Your task to perform on an android device: turn off location history Image 0: 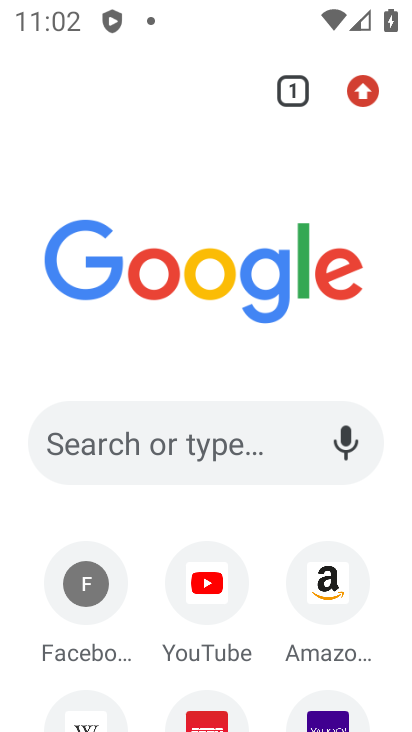
Step 0: press home button
Your task to perform on an android device: turn off location history Image 1: 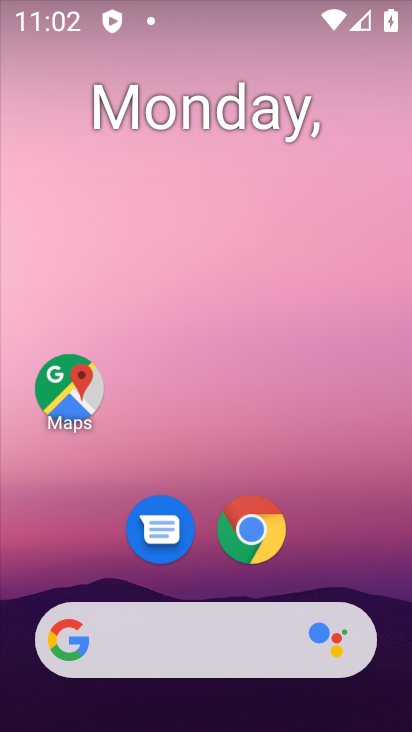
Step 1: drag from (199, 592) to (213, 223)
Your task to perform on an android device: turn off location history Image 2: 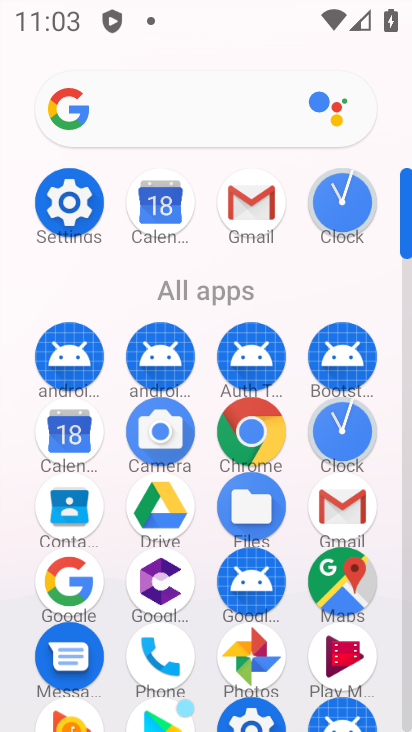
Step 2: click (61, 212)
Your task to perform on an android device: turn off location history Image 3: 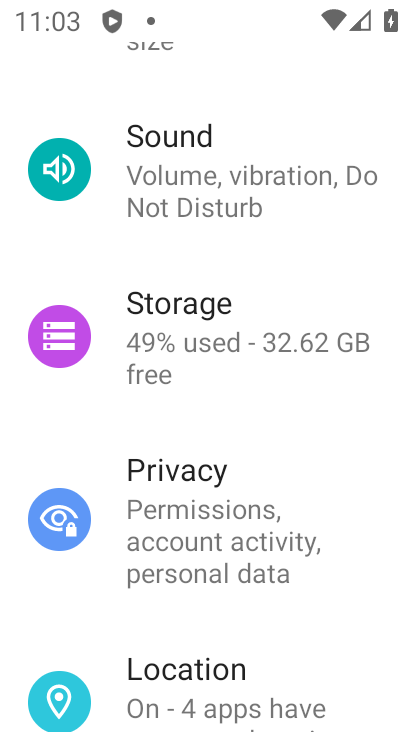
Step 3: drag from (257, 544) to (219, 221)
Your task to perform on an android device: turn off location history Image 4: 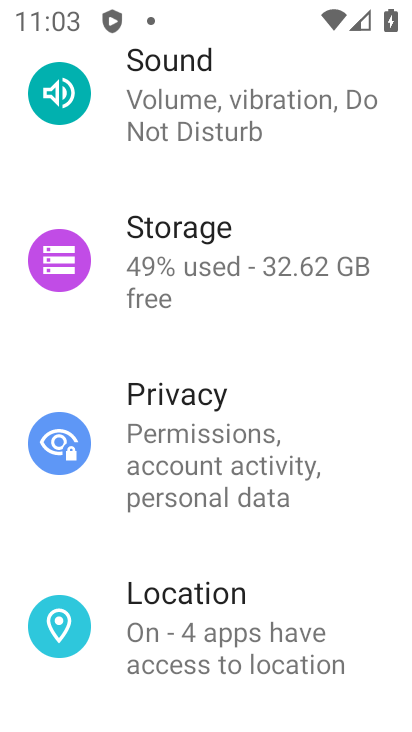
Step 4: drag from (209, 533) to (208, 162)
Your task to perform on an android device: turn off location history Image 5: 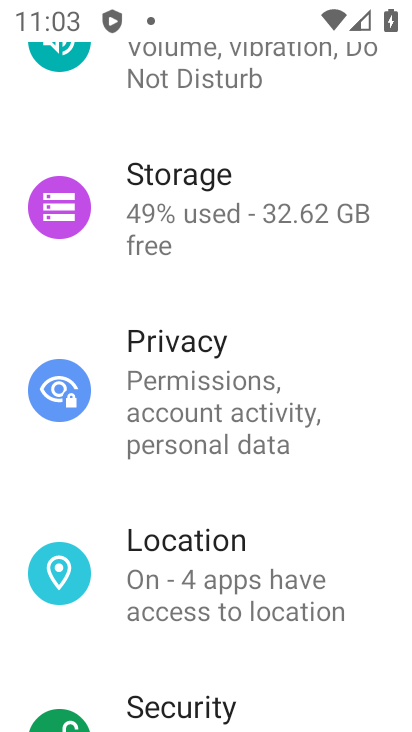
Step 5: click (188, 580)
Your task to perform on an android device: turn off location history Image 6: 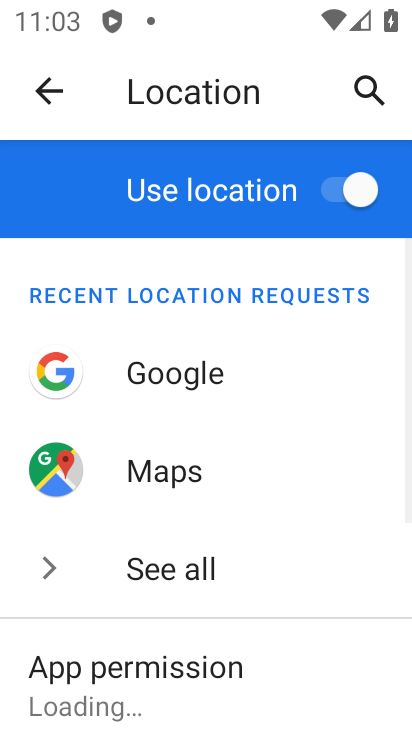
Step 6: drag from (280, 635) to (280, 292)
Your task to perform on an android device: turn off location history Image 7: 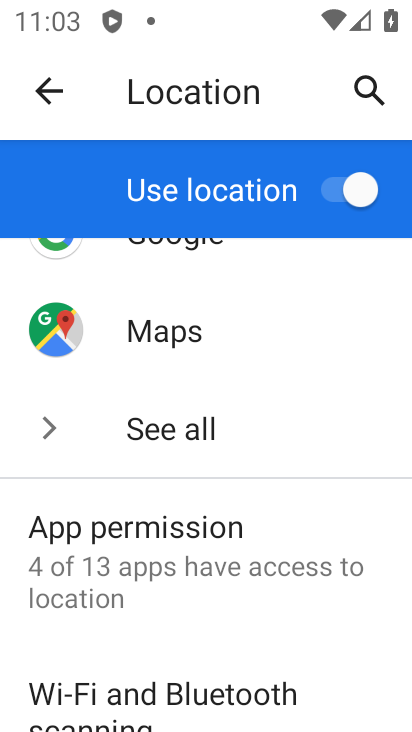
Step 7: drag from (202, 634) to (221, 334)
Your task to perform on an android device: turn off location history Image 8: 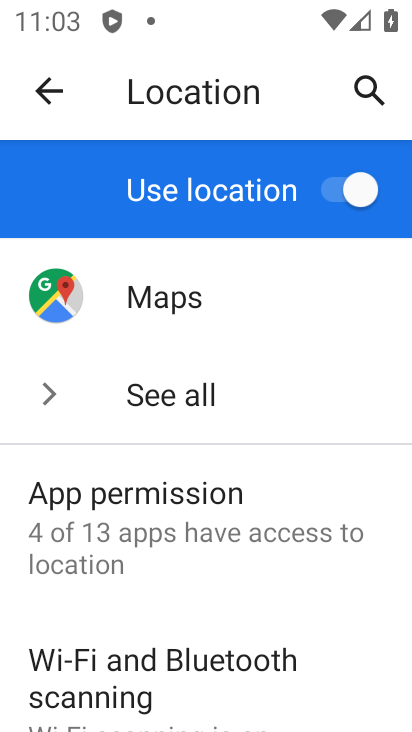
Step 8: drag from (222, 609) to (247, 321)
Your task to perform on an android device: turn off location history Image 9: 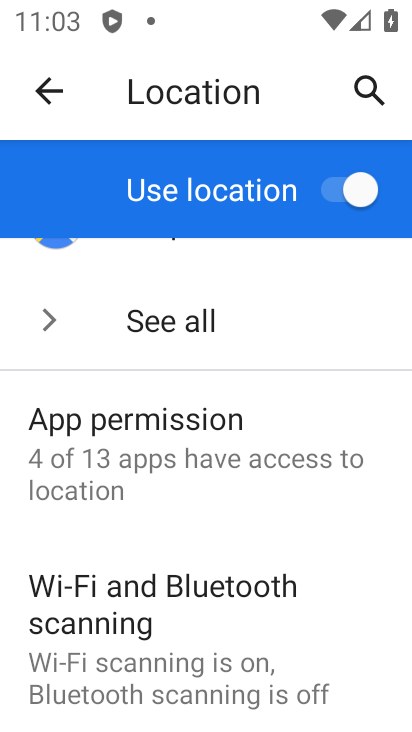
Step 9: drag from (262, 532) to (262, 393)
Your task to perform on an android device: turn off location history Image 10: 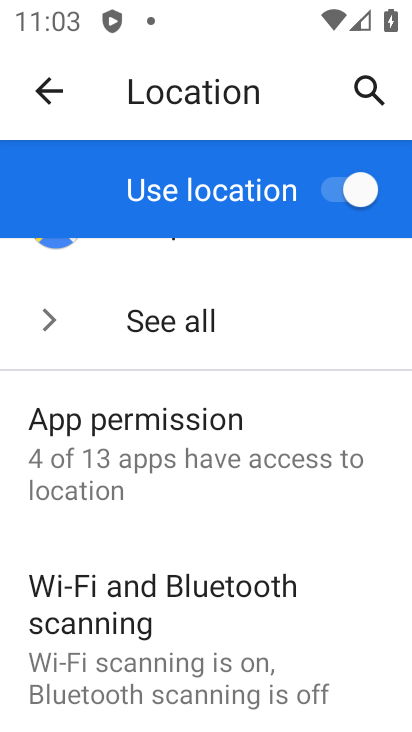
Step 10: drag from (257, 590) to (280, 351)
Your task to perform on an android device: turn off location history Image 11: 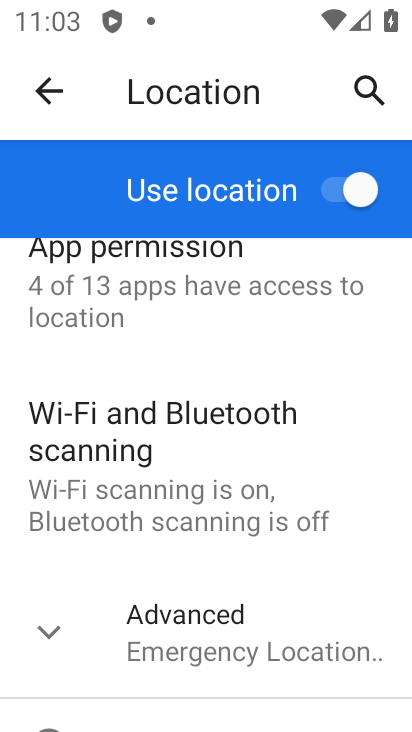
Step 11: drag from (254, 571) to (258, 339)
Your task to perform on an android device: turn off location history Image 12: 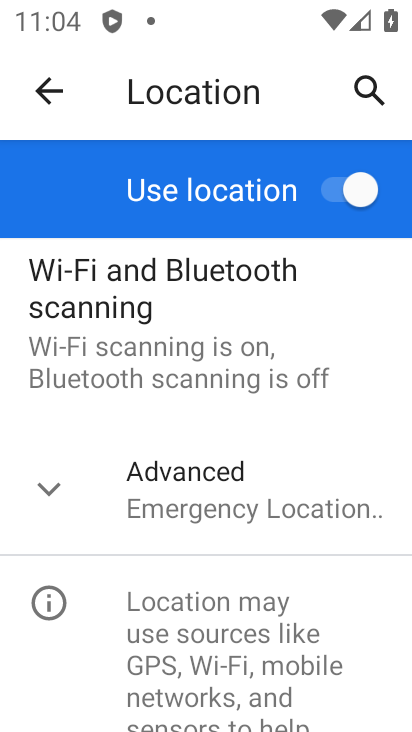
Step 12: click (208, 475)
Your task to perform on an android device: turn off location history Image 13: 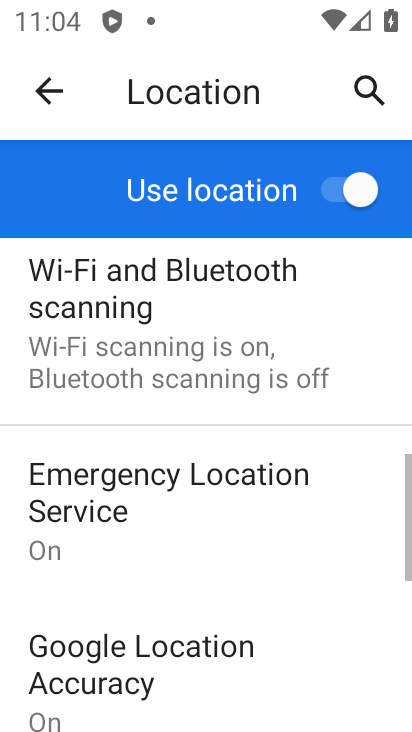
Step 13: drag from (234, 555) to (260, 311)
Your task to perform on an android device: turn off location history Image 14: 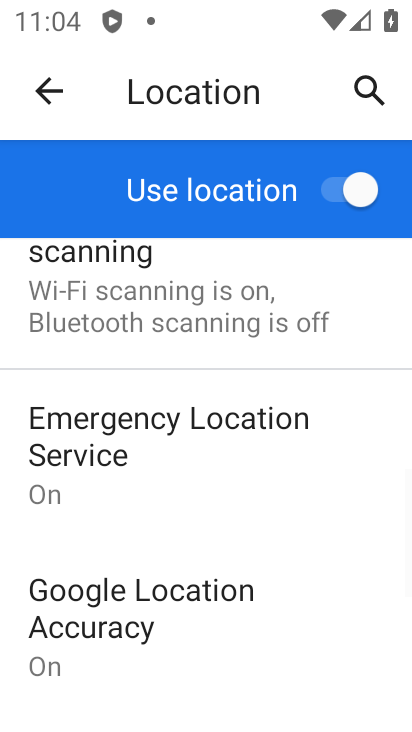
Step 14: drag from (263, 659) to (279, 363)
Your task to perform on an android device: turn off location history Image 15: 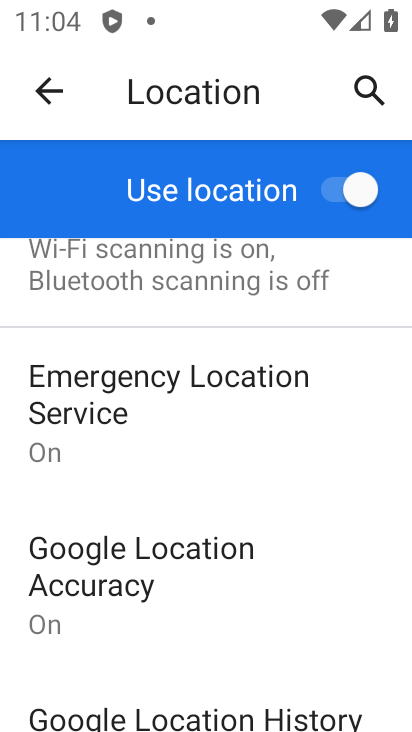
Step 15: drag from (228, 675) to (249, 438)
Your task to perform on an android device: turn off location history Image 16: 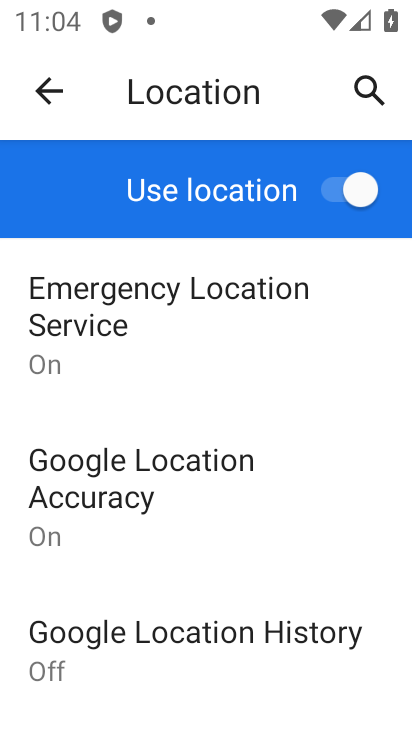
Step 16: click (199, 626)
Your task to perform on an android device: turn off location history Image 17: 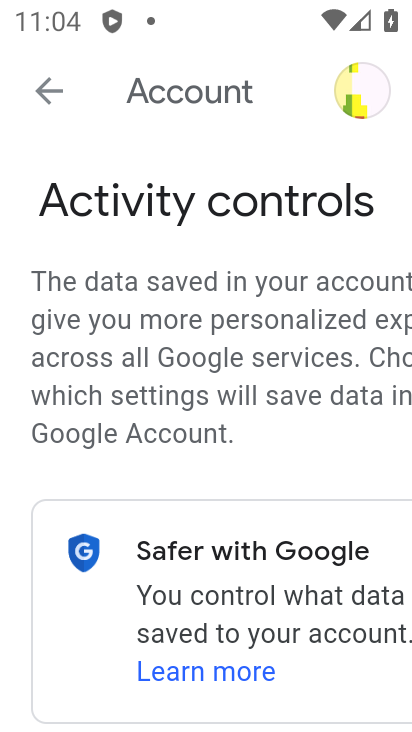
Step 17: task complete